Your task to perform on an android device: Check the news Image 0: 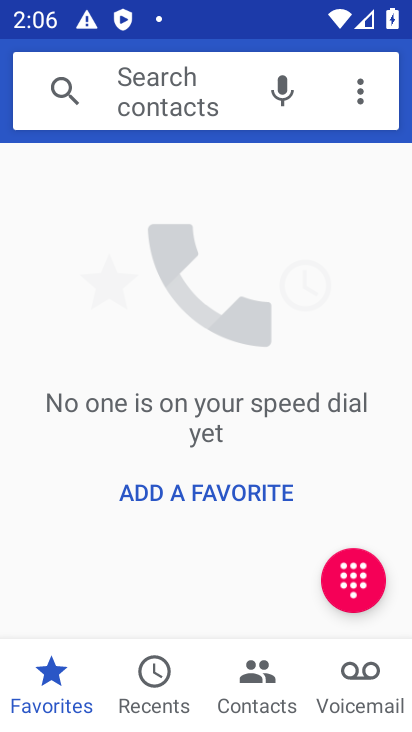
Step 0: drag from (154, 619) to (161, 526)
Your task to perform on an android device: Check the news Image 1: 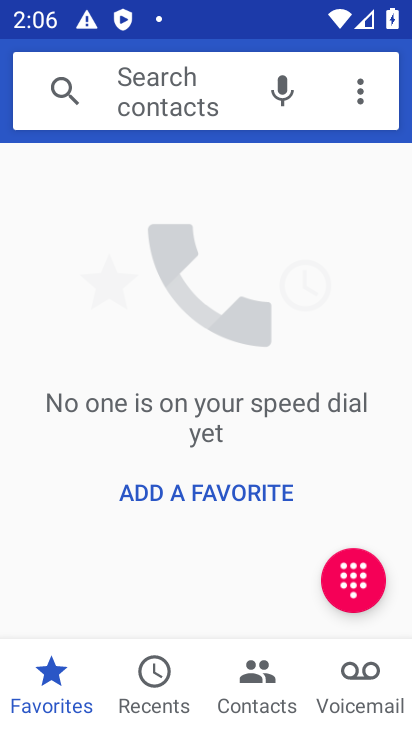
Step 1: press home button
Your task to perform on an android device: Check the news Image 2: 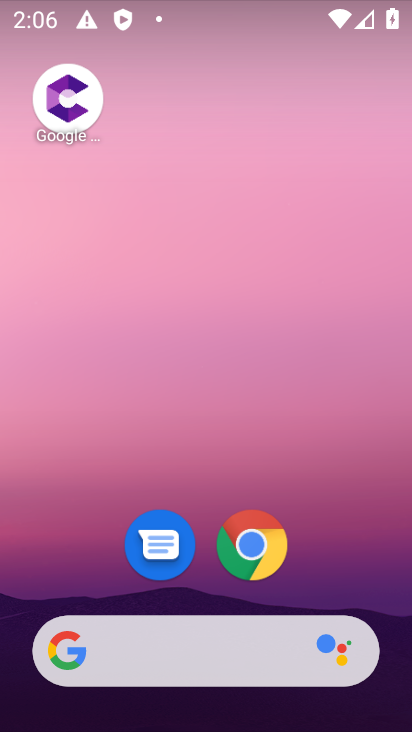
Step 2: drag from (146, 620) to (189, 240)
Your task to perform on an android device: Check the news Image 3: 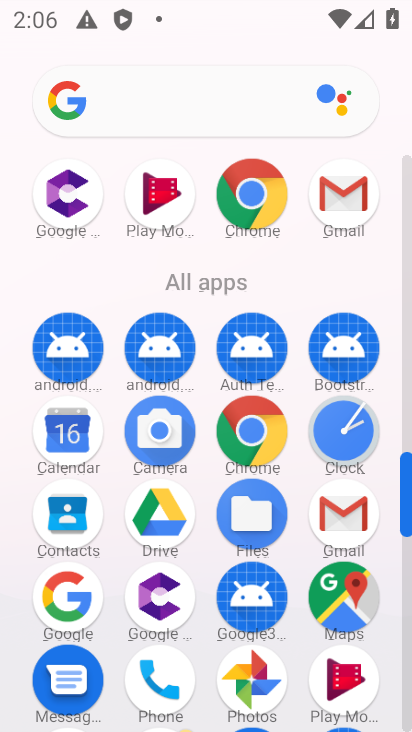
Step 3: click (67, 583)
Your task to perform on an android device: Check the news Image 4: 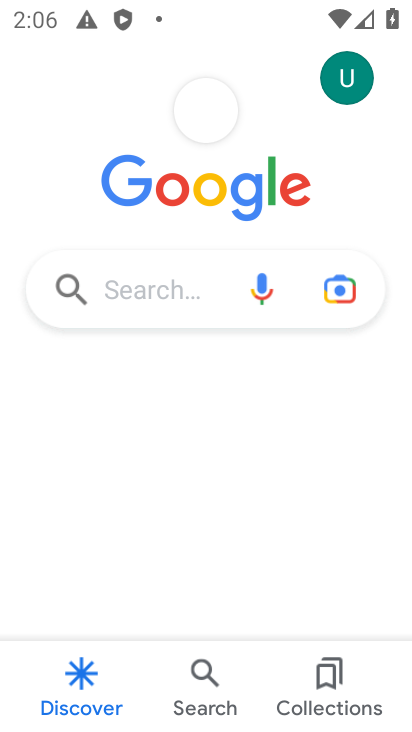
Step 4: click (137, 296)
Your task to perform on an android device: Check the news Image 5: 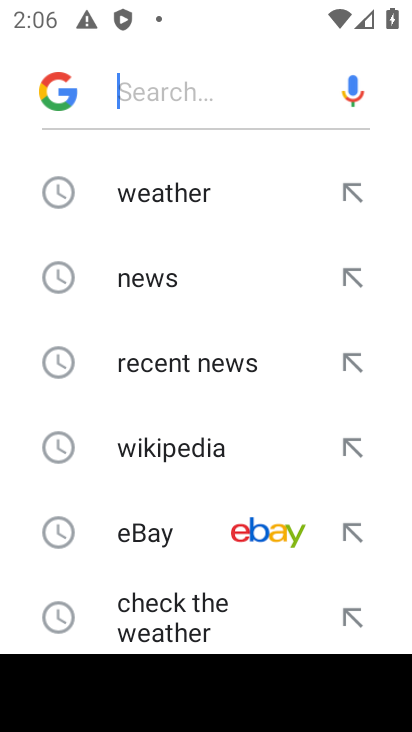
Step 5: click (127, 272)
Your task to perform on an android device: Check the news Image 6: 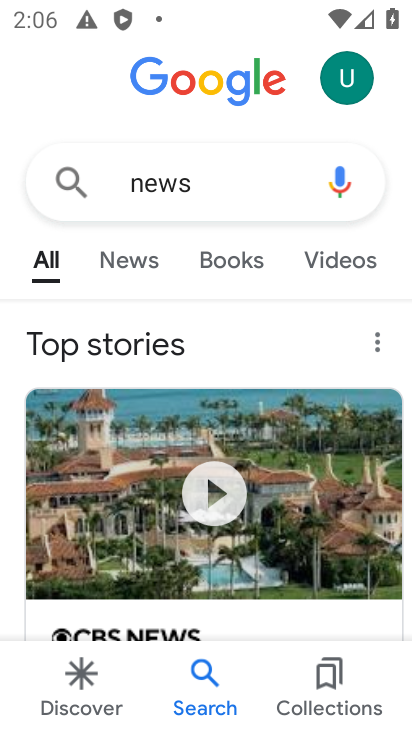
Step 6: task complete